Your task to perform on an android device: change alarm snooze length Image 0: 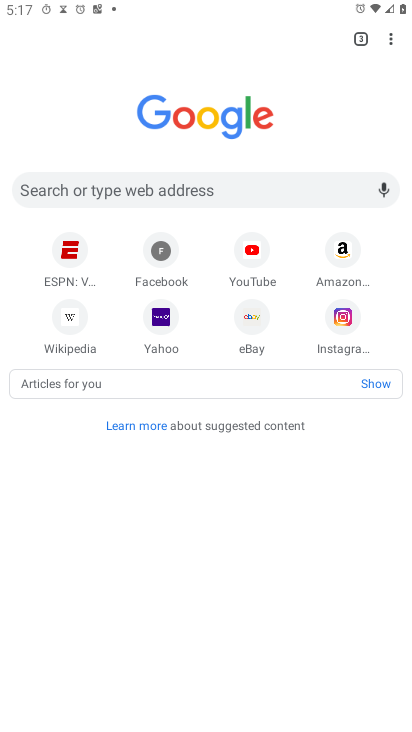
Step 0: press home button
Your task to perform on an android device: change alarm snooze length Image 1: 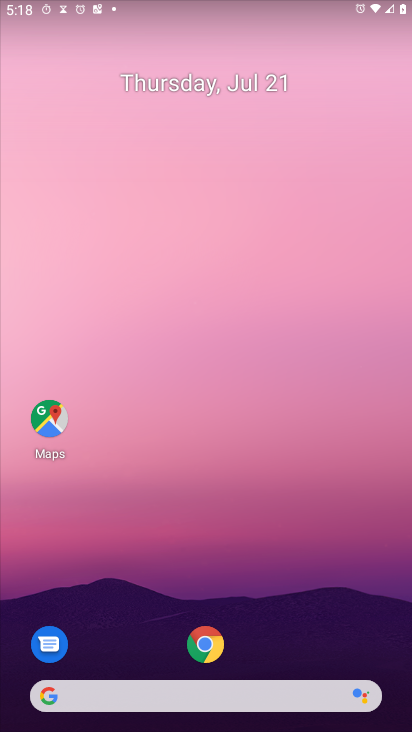
Step 1: press home button
Your task to perform on an android device: change alarm snooze length Image 2: 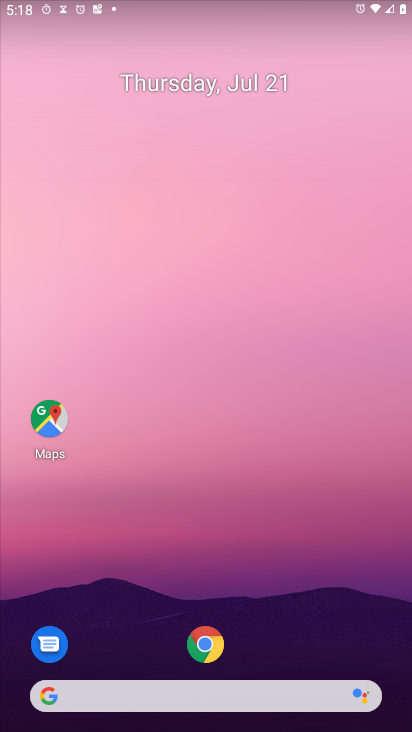
Step 2: drag from (305, 623) to (299, 87)
Your task to perform on an android device: change alarm snooze length Image 3: 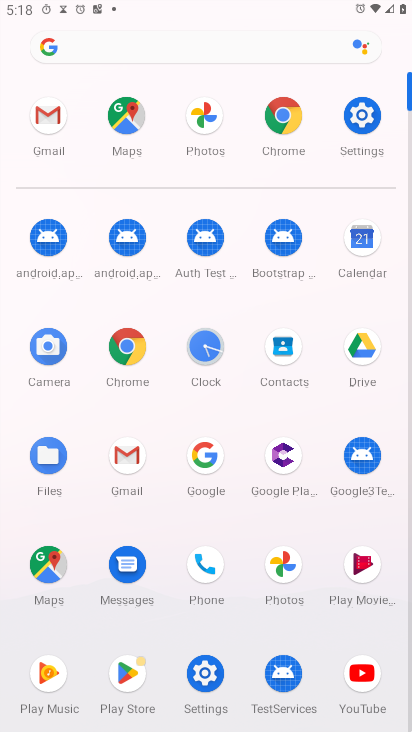
Step 3: click (198, 346)
Your task to perform on an android device: change alarm snooze length Image 4: 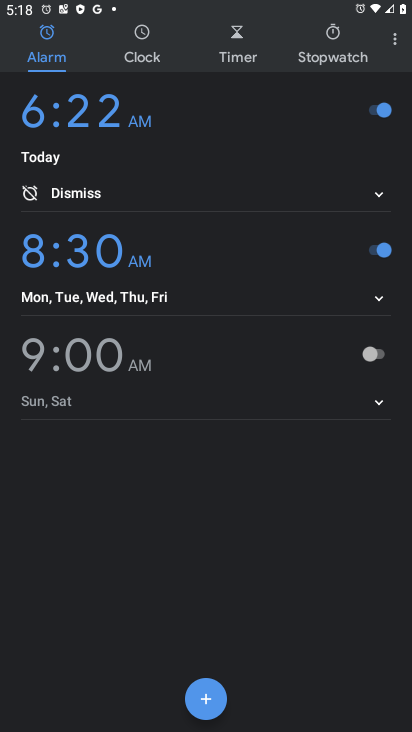
Step 4: click (391, 33)
Your task to perform on an android device: change alarm snooze length Image 5: 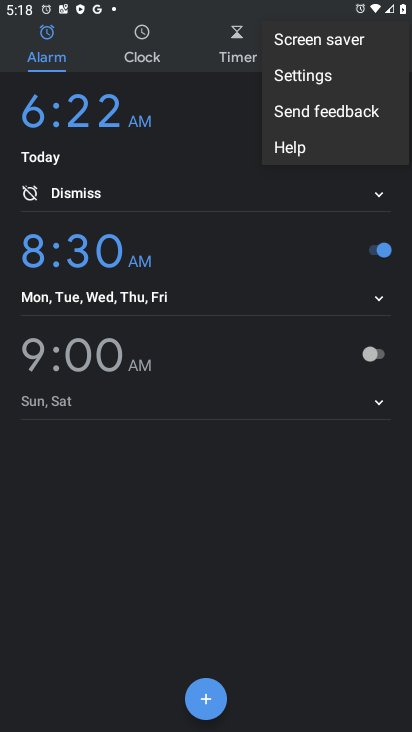
Step 5: click (297, 82)
Your task to perform on an android device: change alarm snooze length Image 6: 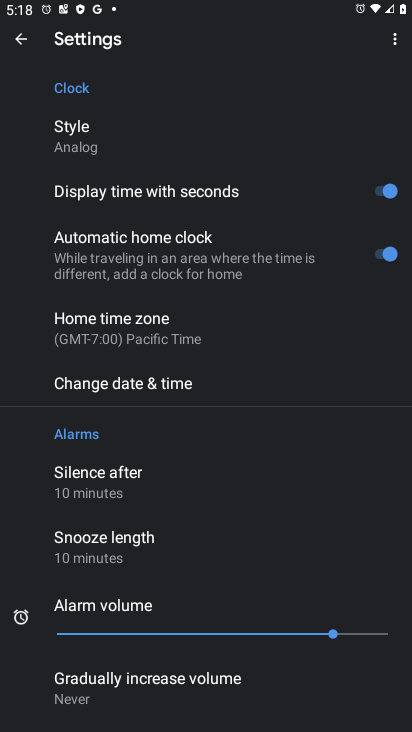
Step 6: click (119, 540)
Your task to perform on an android device: change alarm snooze length Image 7: 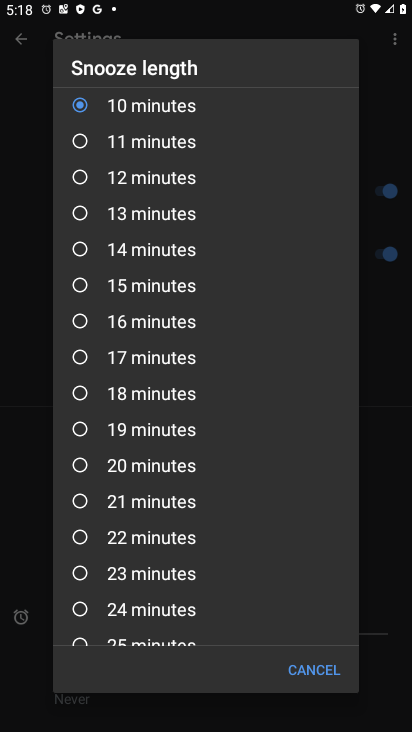
Step 7: click (82, 290)
Your task to perform on an android device: change alarm snooze length Image 8: 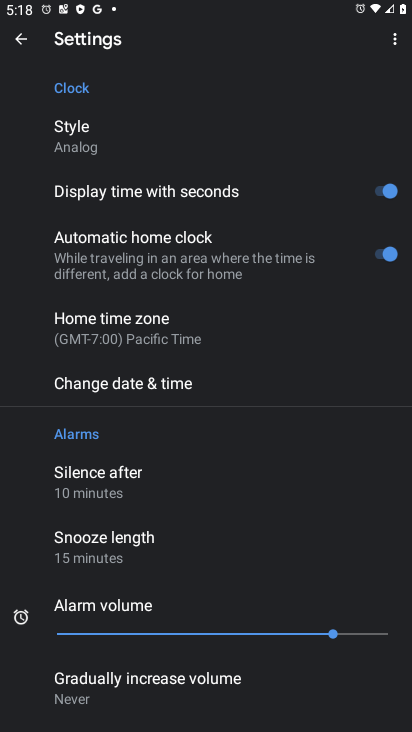
Step 8: task complete